Your task to perform on an android device: What's on my calendar tomorrow? Image 0: 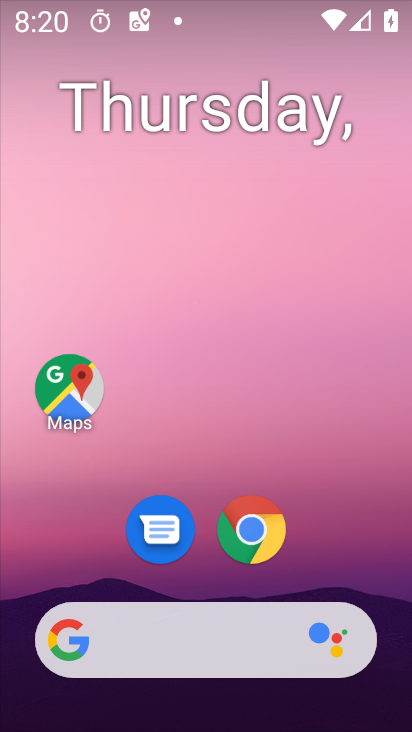
Step 0: drag from (387, 633) to (383, 132)
Your task to perform on an android device: What's on my calendar tomorrow? Image 1: 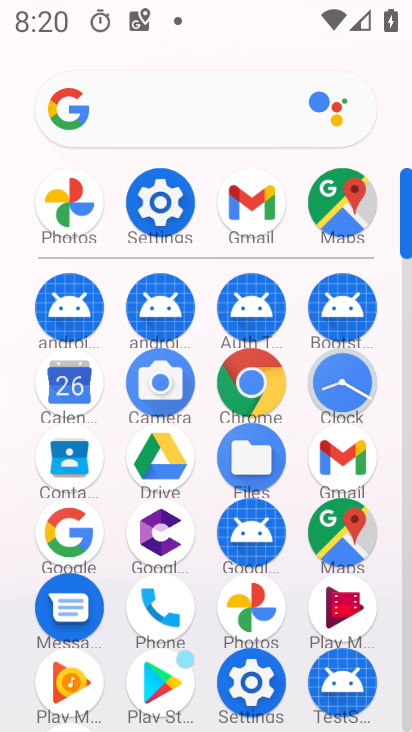
Step 1: click (91, 395)
Your task to perform on an android device: What's on my calendar tomorrow? Image 2: 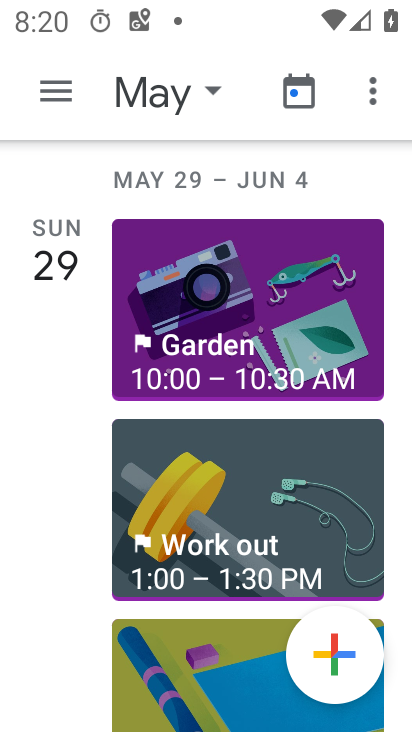
Step 2: click (200, 87)
Your task to perform on an android device: What's on my calendar tomorrow? Image 3: 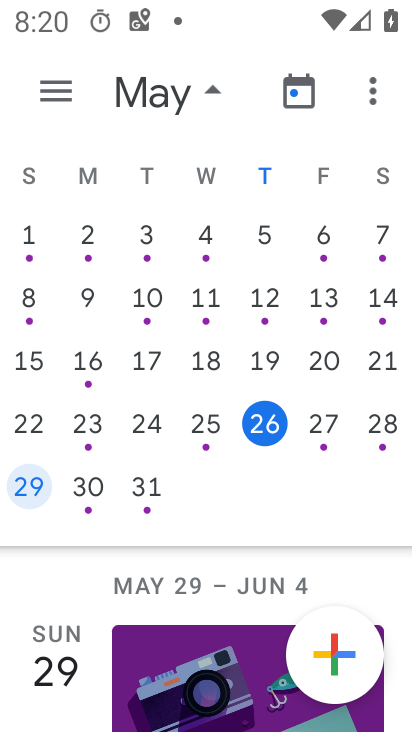
Step 3: click (321, 419)
Your task to perform on an android device: What's on my calendar tomorrow? Image 4: 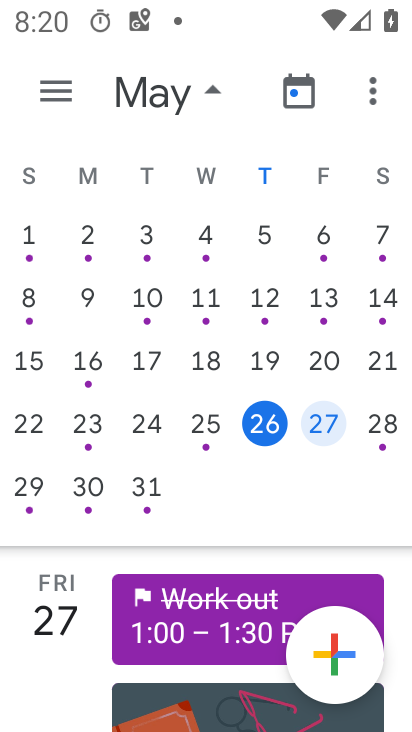
Step 4: task complete